Your task to perform on an android device: Play the last video I watched on Youtube Image 0: 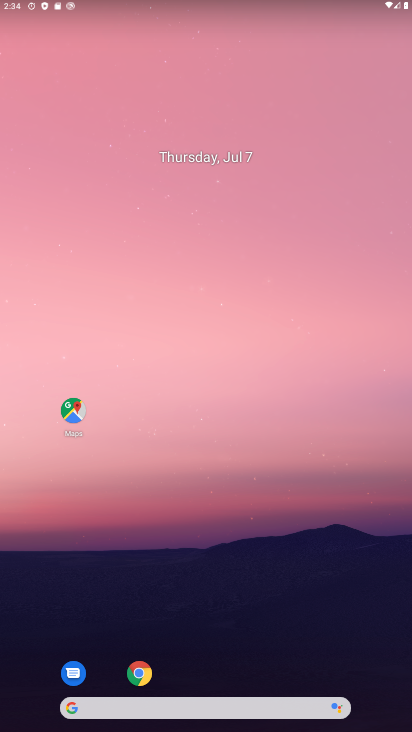
Step 0: drag from (245, 653) to (179, 39)
Your task to perform on an android device: Play the last video I watched on Youtube Image 1: 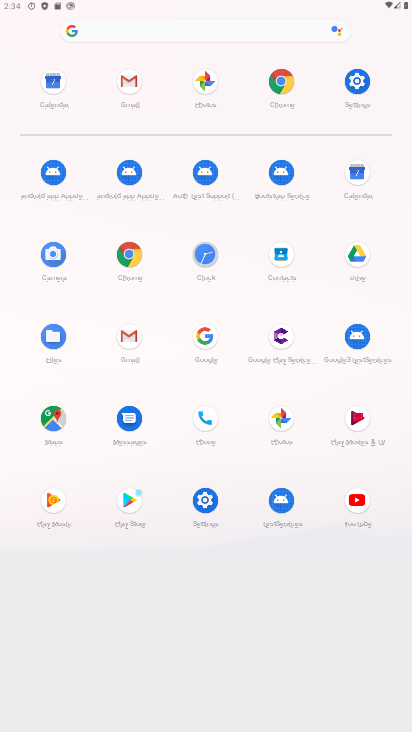
Step 1: click (364, 494)
Your task to perform on an android device: Play the last video I watched on Youtube Image 2: 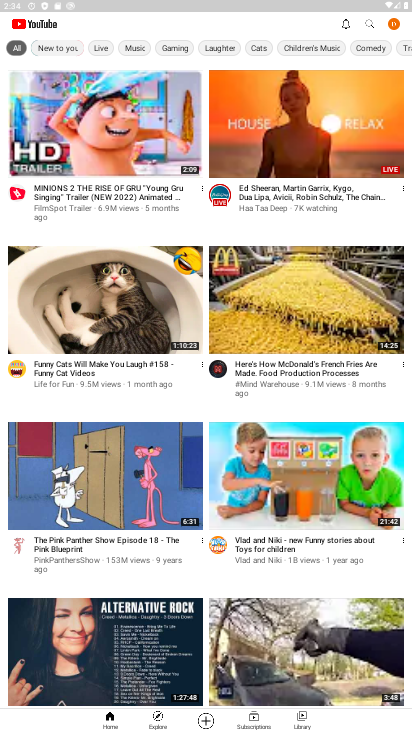
Step 2: click (391, 22)
Your task to perform on an android device: Play the last video I watched on Youtube Image 3: 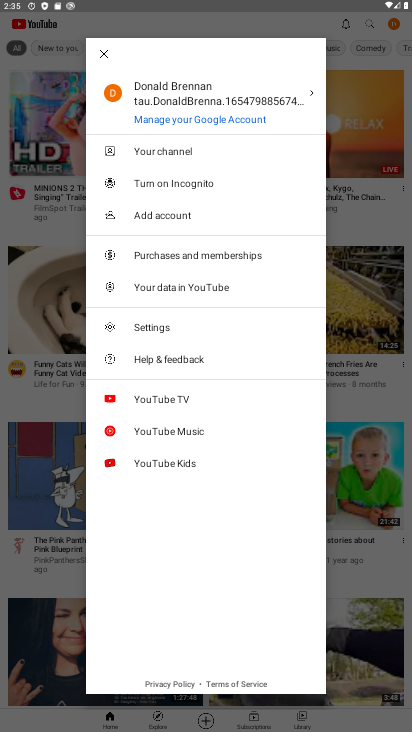
Step 3: click (36, 269)
Your task to perform on an android device: Play the last video I watched on Youtube Image 4: 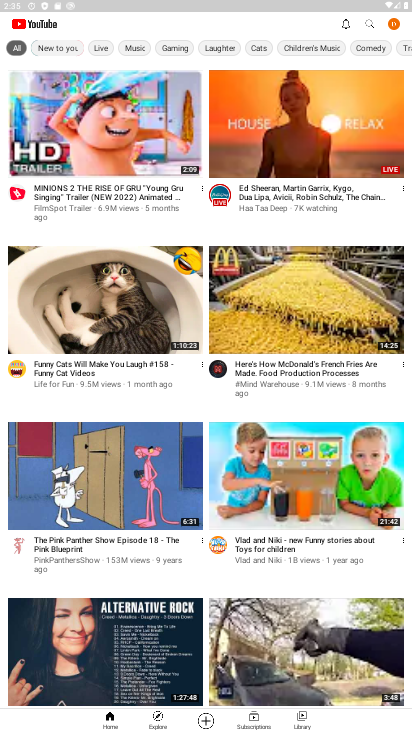
Step 4: click (144, 715)
Your task to perform on an android device: Play the last video I watched on Youtube Image 5: 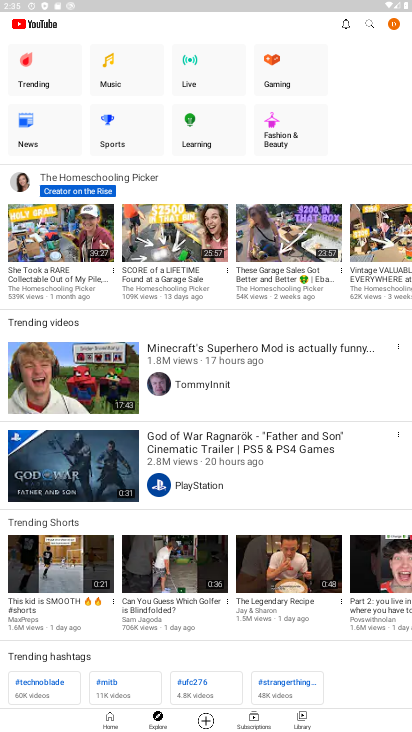
Step 5: click (294, 715)
Your task to perform on an android device: Play the last video I watched on Youtube Image 6: 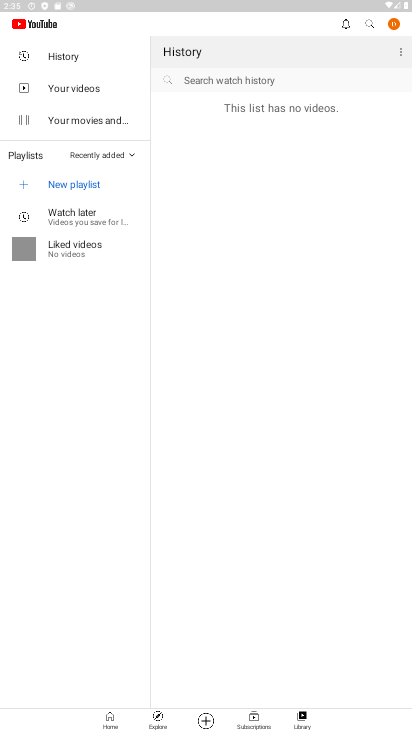
Step 6: click (64, 53)
Your task to perform on an android device: Play the last video I watched on Youtube Image 7: 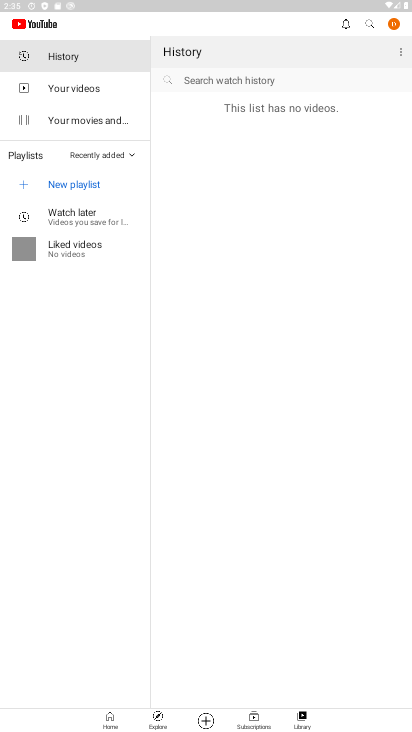
Step 7: task complete